Your task to perform on an android device: Search for seafood restaurants on Google Maps Image 0: 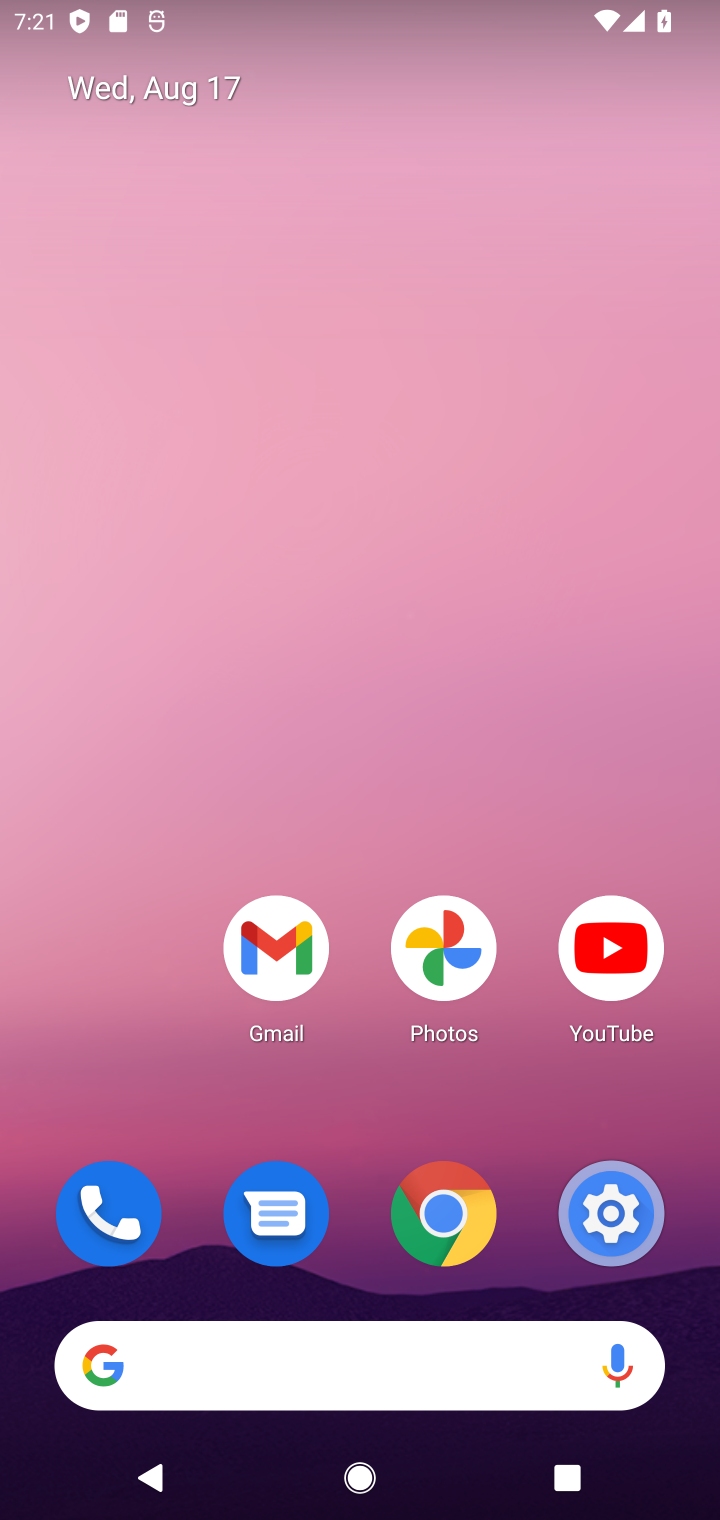
Step 0: drag from (348, 1291) to (319, 374)
Your task to perform on an android device: Search for seafood restaurants on Google Maps Image 1: 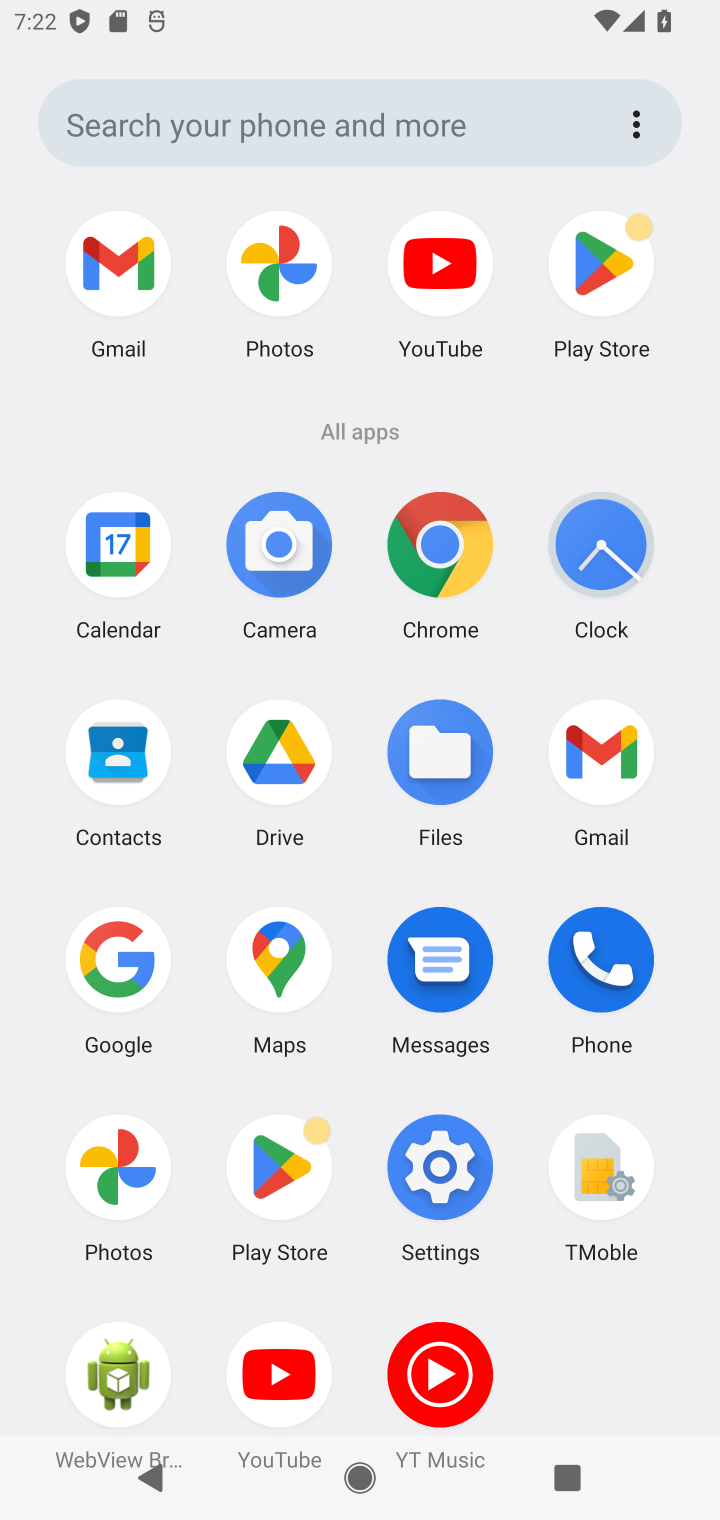
Step 1: click (293, 1028)
Your task to perform on an android device: Search for seafood restaurants on Google Maps Image 2: 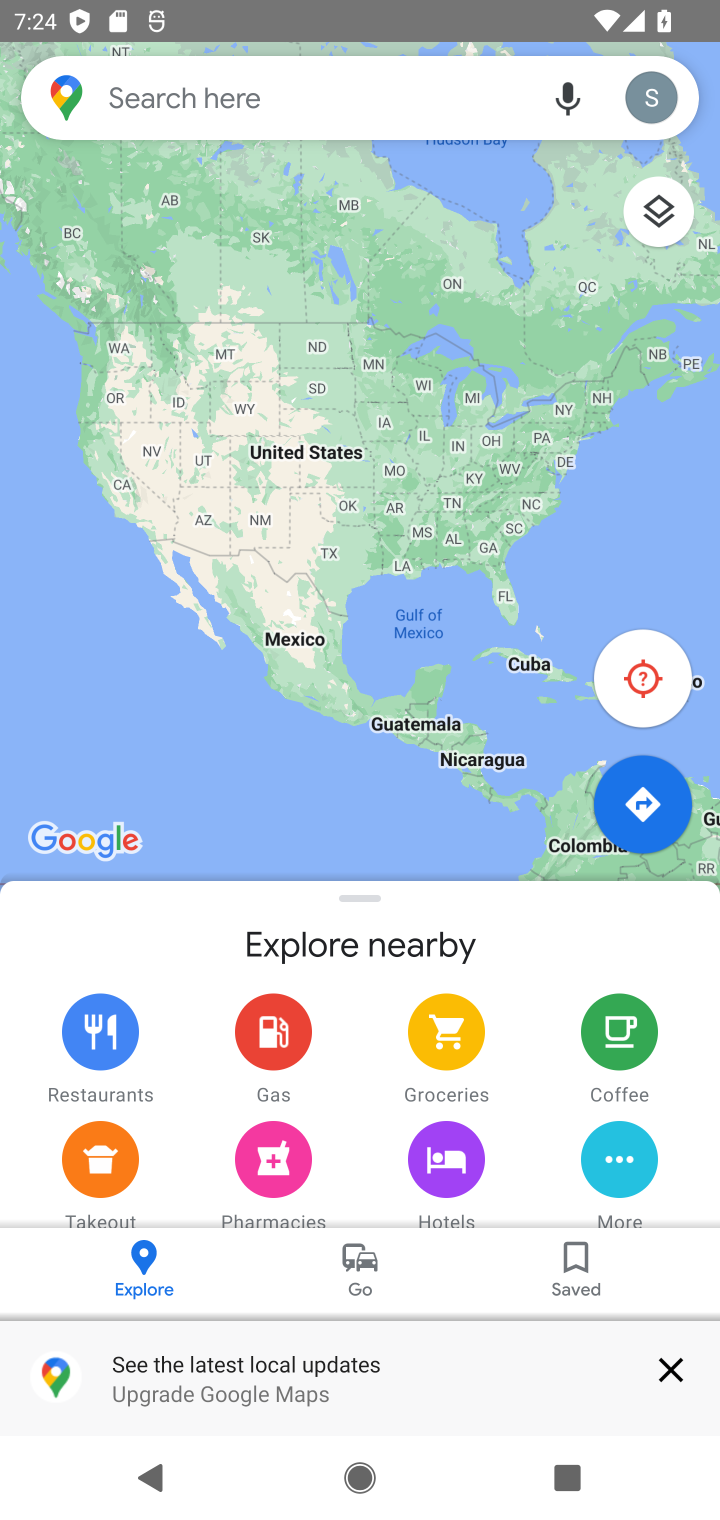
Step 2: click (299, 129)
Your task to perform on an android device: Search for seafood restaurants on Google Maps Image 3: 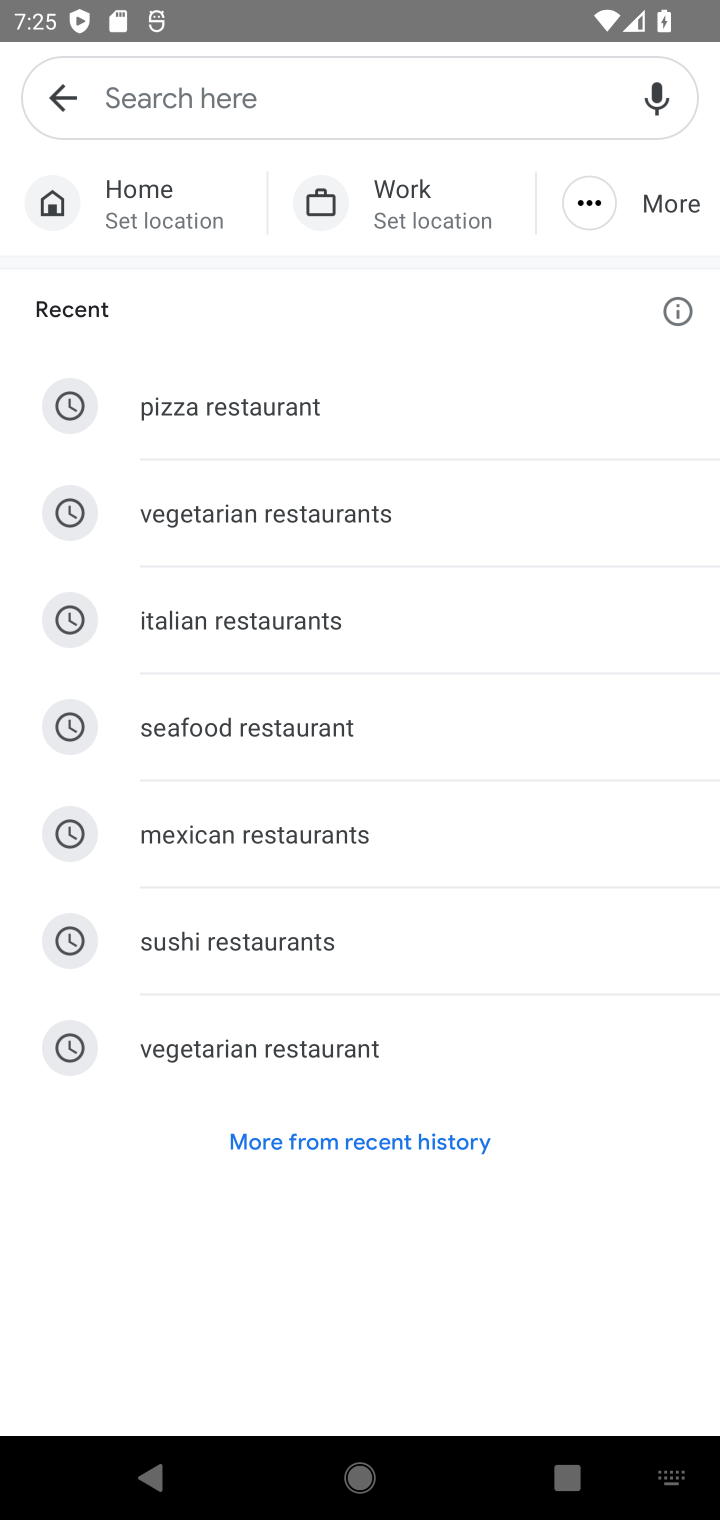
Step 3: click (292, 737)
Your task to perform on an android device: Search for seafood restaurants on Google Maps Image 4: 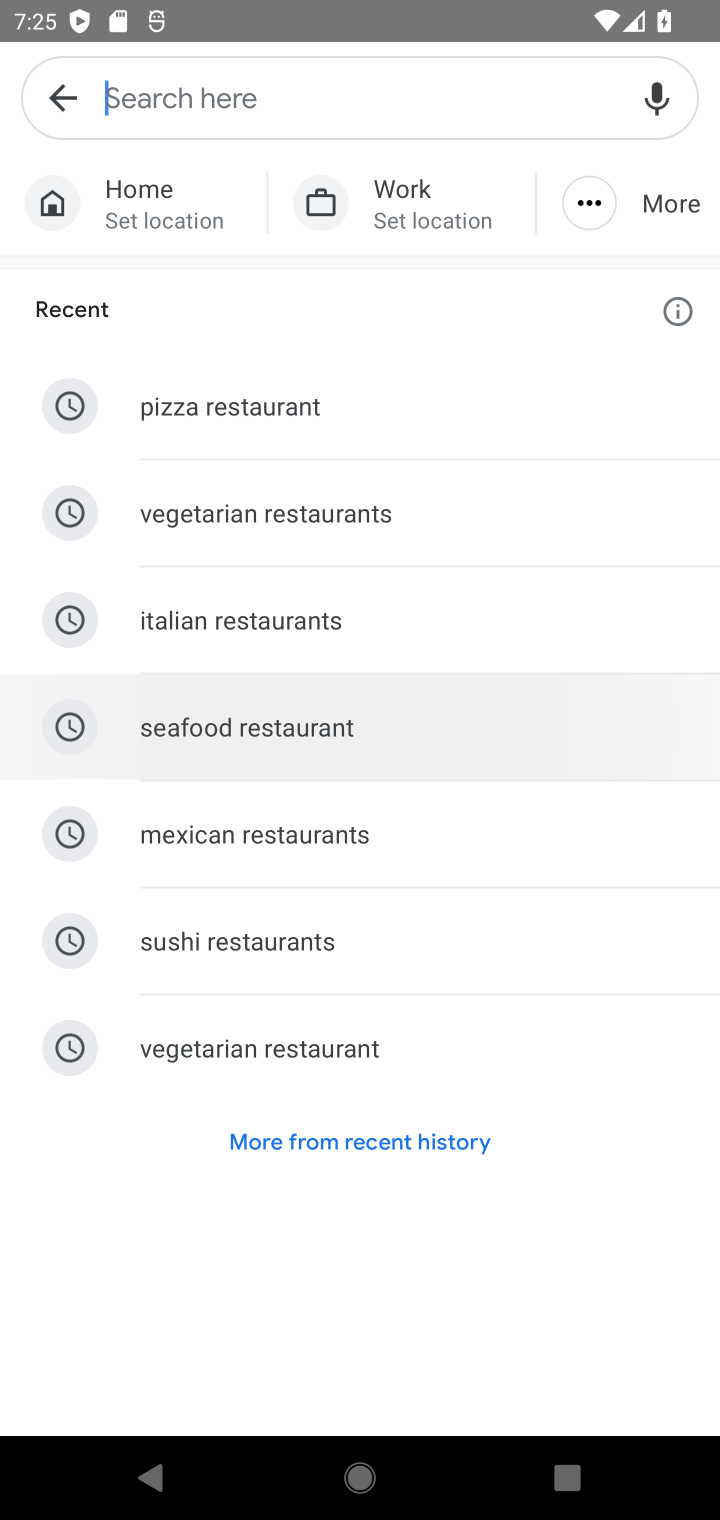
Step 4: task complete